Your task to perform on an android device: toggle notifications settings in the gmail app Image 0: 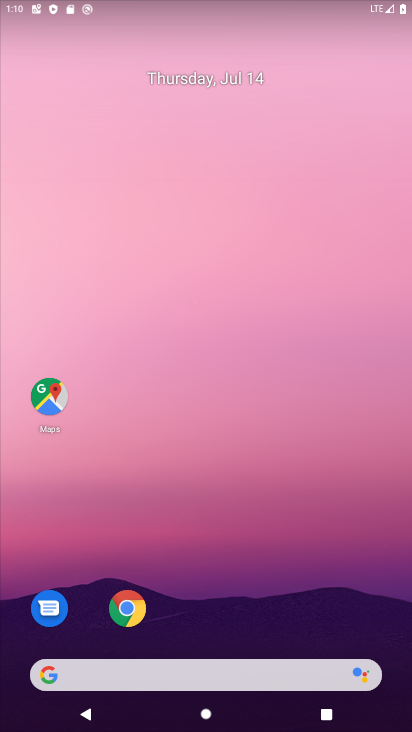
Step 0: drag from (7, 574) to (231, 111)
Your task to perform on an android device: toggle notifications settings in the gmail app Image 1: 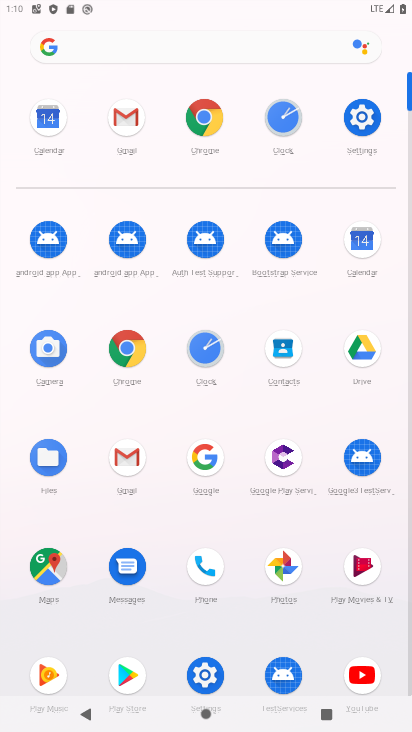
Step 1: click (126, 469)
Your task to perform on an android device: toggle notifications settings in the gmail app Image 2: 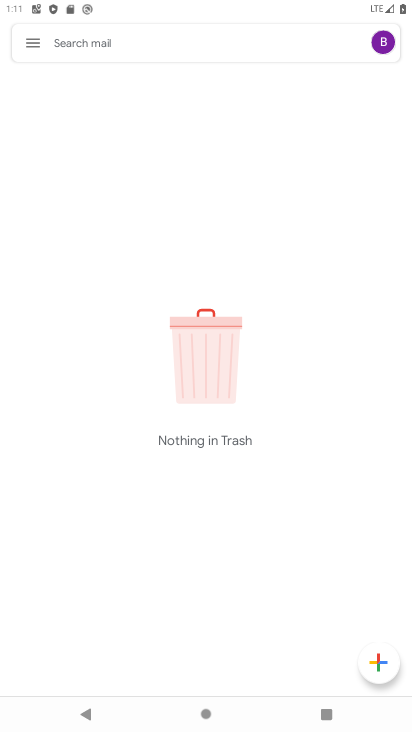
Step 2: click (27, 45)
Your task to perform on an android device: toggle notifications settings in the gmail app Image 3: 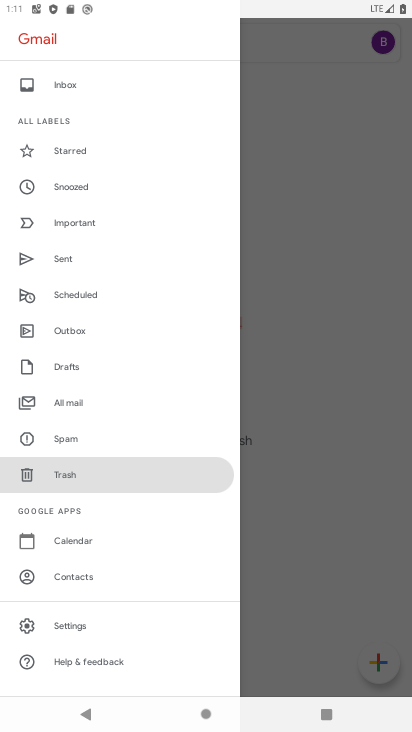
Step 3: click (101, 631)
Your task to perform on an android device: toggle notifications settings in the gmail app Image 4: 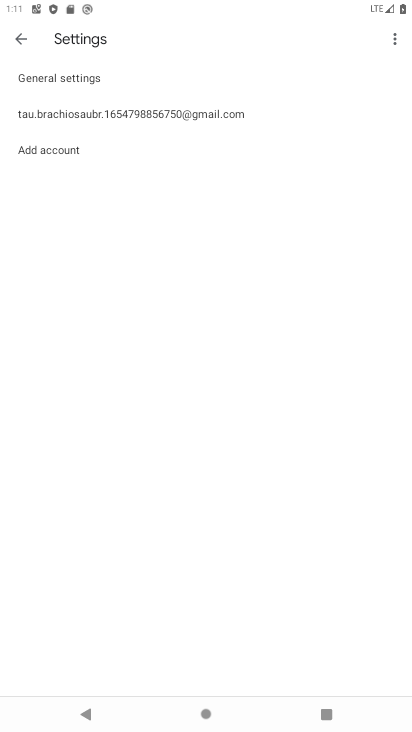
Step 4: click (132, 118)
Your task to perform on an android device: toggle notifications settings in the gmail app Image 5: 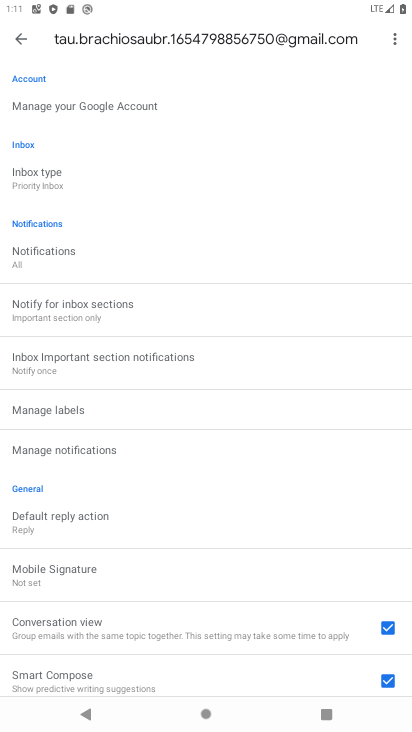
Step 5: click (93, 453)
Your task to perform on an android device: toggle notifications settings in the gmail app Image 6: 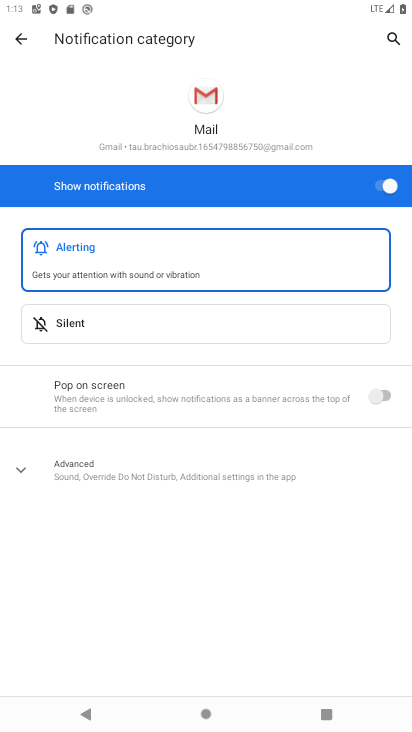
Step 6: click (391, 187)
Your task to perform on an android device: toggle notifications settings in the gmail app Image 7: 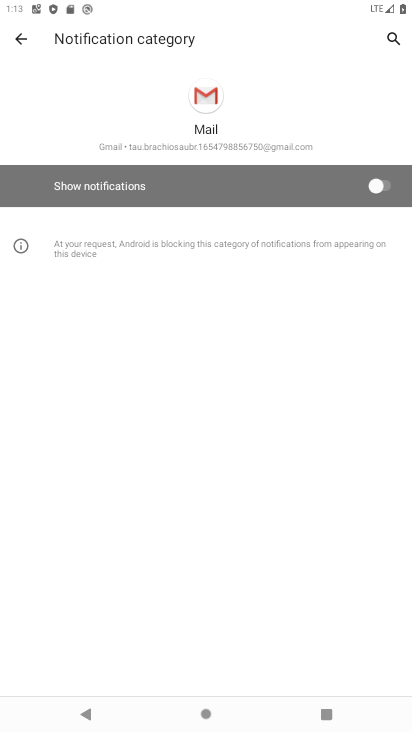
Step 7: task complete